Your task to perform on an android device: Go to settings Image 0: 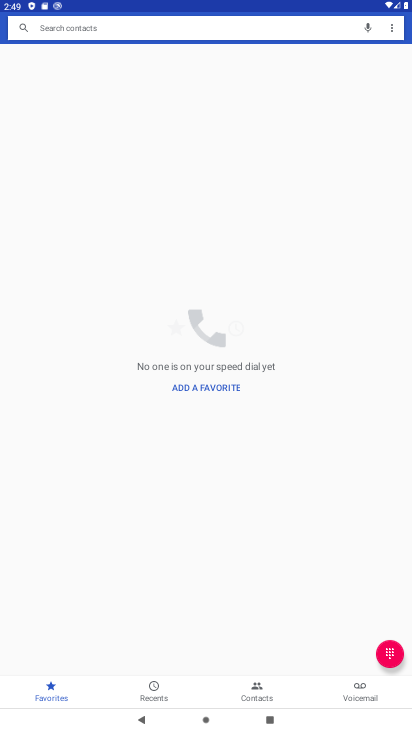
Step 0: press home button
Your task to perform on an android device: Go to settings Image 1: 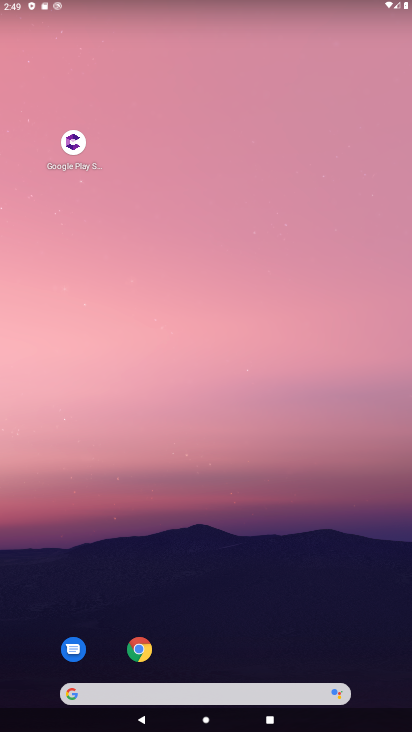
Step 1: drag from (175, 685) to (141, 194)
Your task to perform on an android device: Go to settings Image 2: 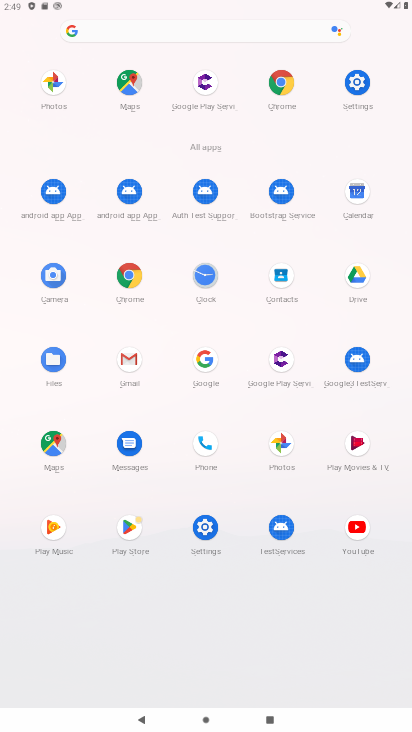
Step 2: click (198, 525)
Your task to perform on an android device: Go to settings Image 3: 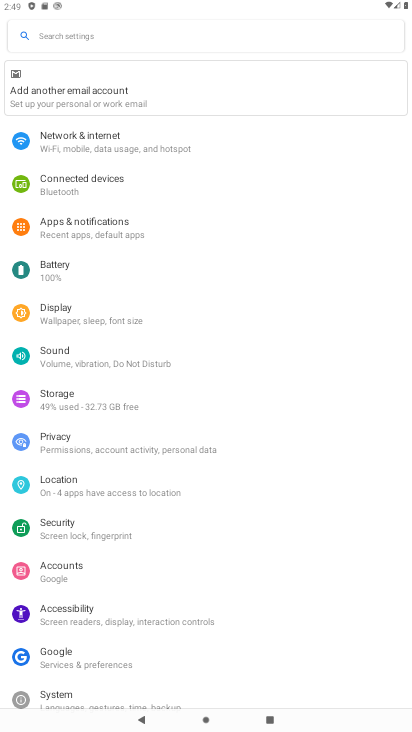
Step 3: task complete